Your task to perform on an android device: Do I have any events tomorrow? Image 0: 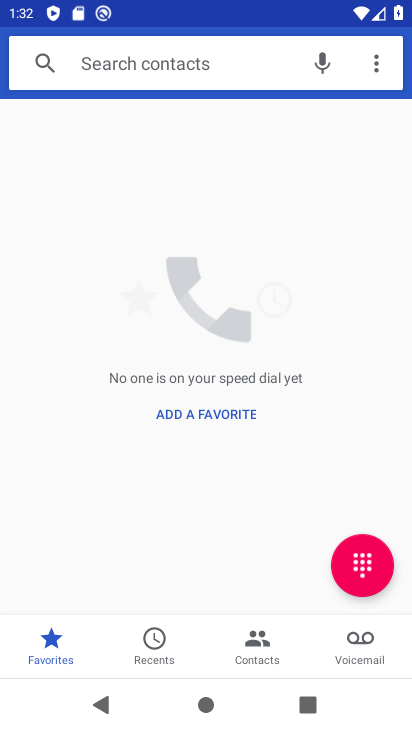
Step 0: press home button
Your task to perform on an android device: Do I have any events tomorrow? Image 1: 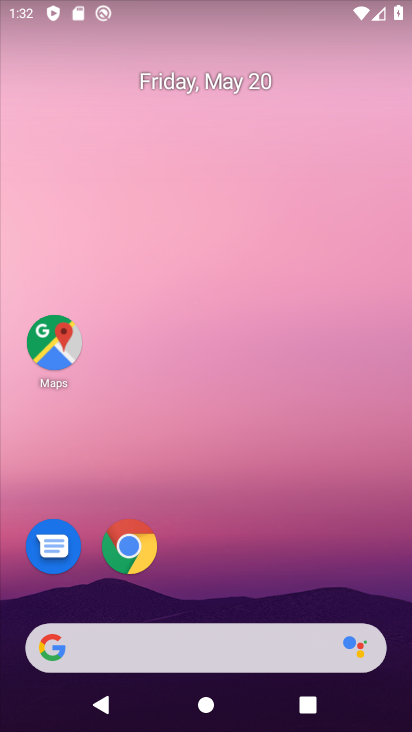
Step 1: drag from (235, 581) to (218, 189)
Your task to perform on an android device: Do I have any events tomorrow? Image 2: 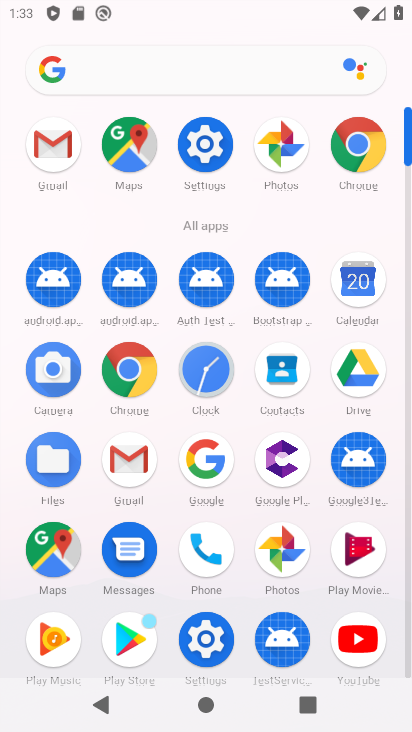
Step 2: click (344, 287)
Your task to perform on an android device: Do I have any events tomorrow? Image 3: 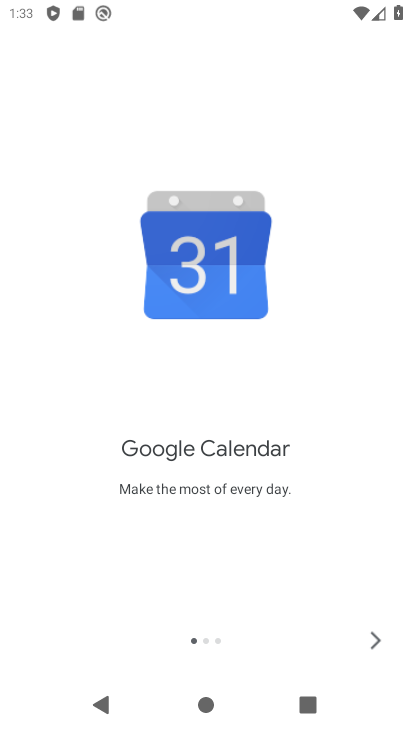
Step 3: click (372, 659)
Your task to perform on an android device: Do I have any events tomorrow? Image 4: 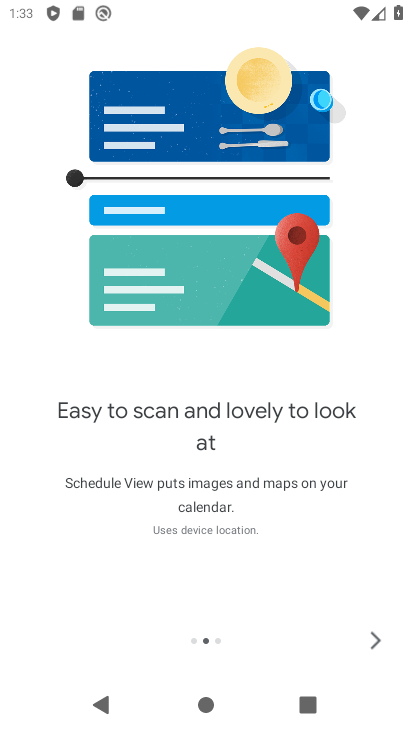
Step 4: click (372, 659)
Your task to perform on an android device: Do I have any events tomorrow? Image 5: 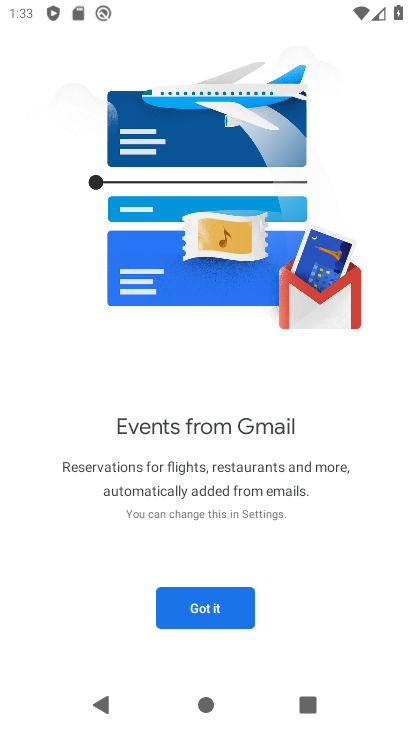
Step 5: click (212, 617)
Your task to perform on an android device: Do I have any events tomorrow? Image 6: 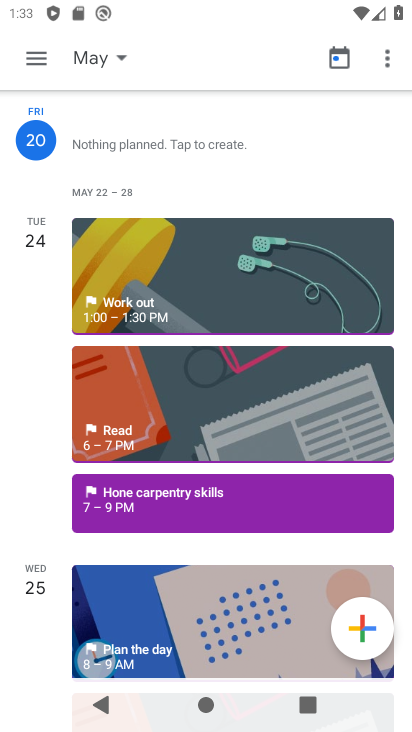
Step 6: click (44, 66)
Your task to perform on an android device: Do I have any events tomorrow? Image 7: 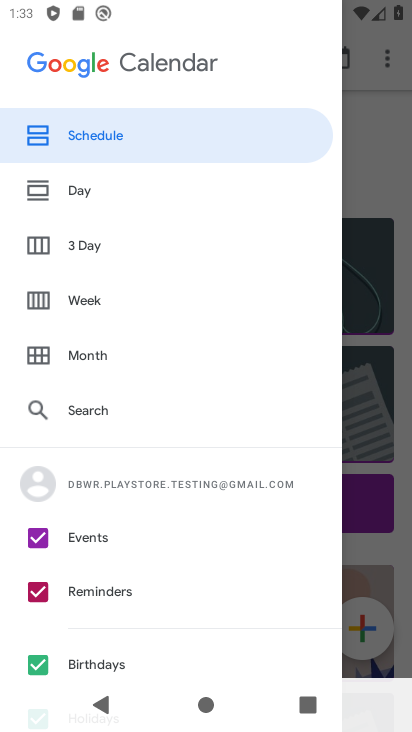
Step 7: click (121, 202)
Your task to perform on an android device: Do I have any events tomorrow? Image 8: 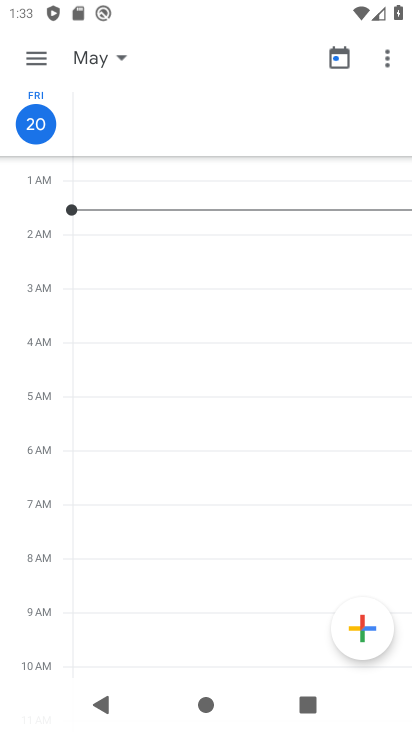
Step 8: click (121, 47)
Your task to perform on an android device: Do I have any events tomorrow? Image 9: 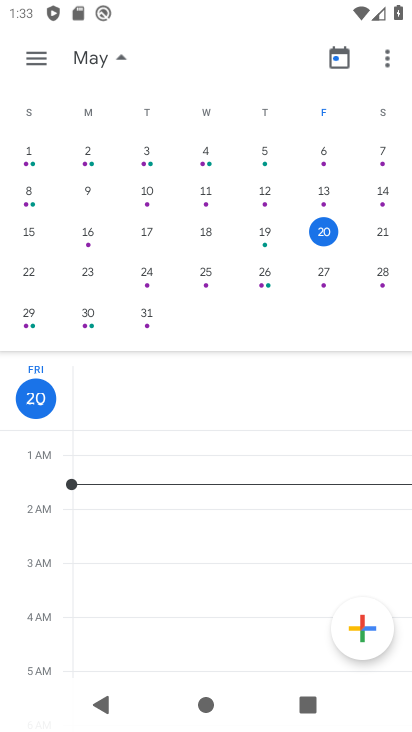
Step 9: click (375, 226)
Your task to perform on an android device: Do I have any events tomorrow? Image 10: 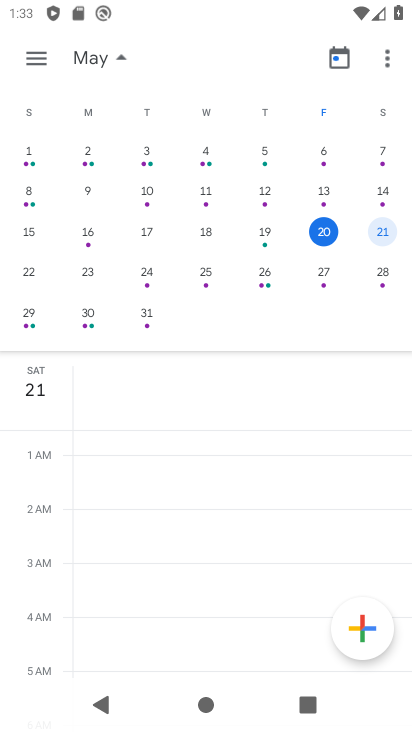
Step 10: task complete